Your task to perform on an android device: Go to Google maps Image 0: 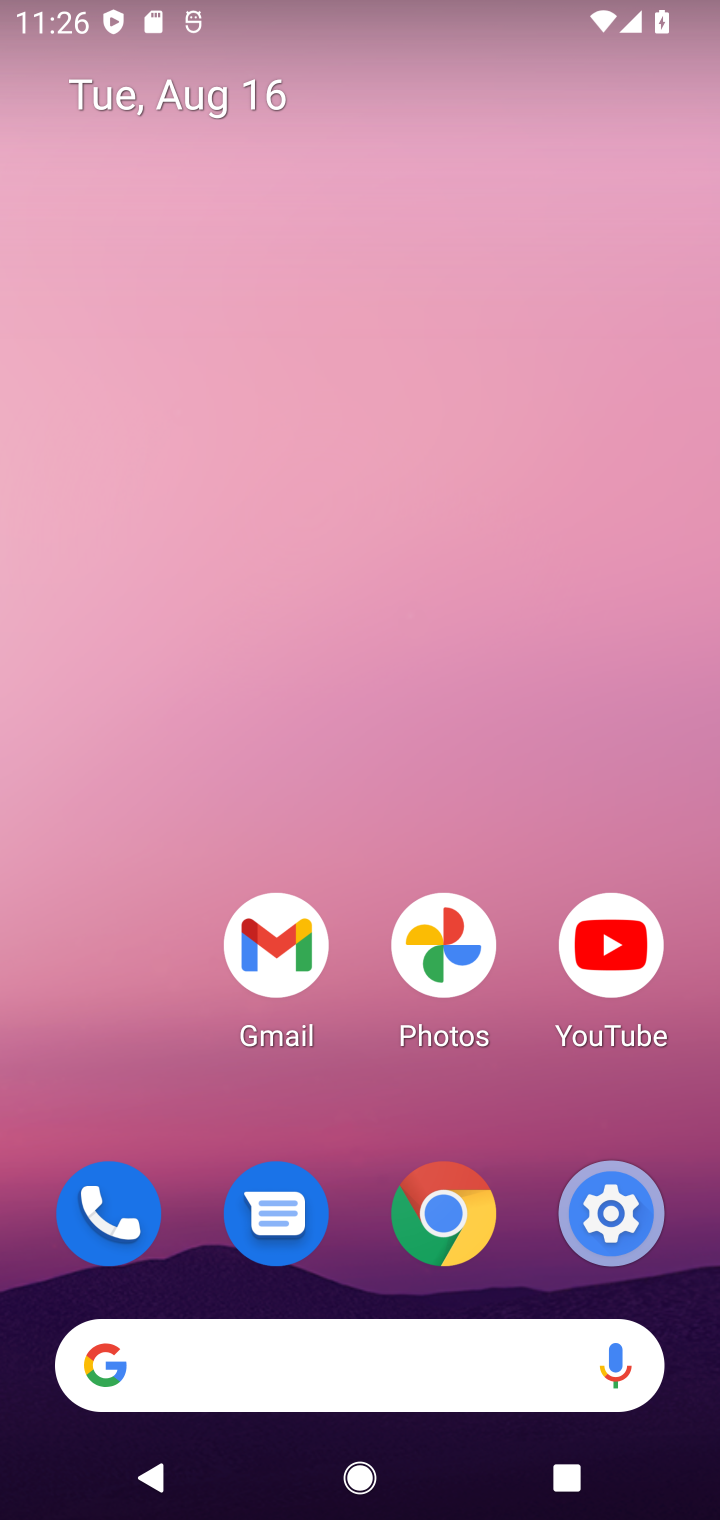
Step 0: drag from (410, 464) to (1, 209)
Your task to perform on an android device: Go to Google maps Image 1: 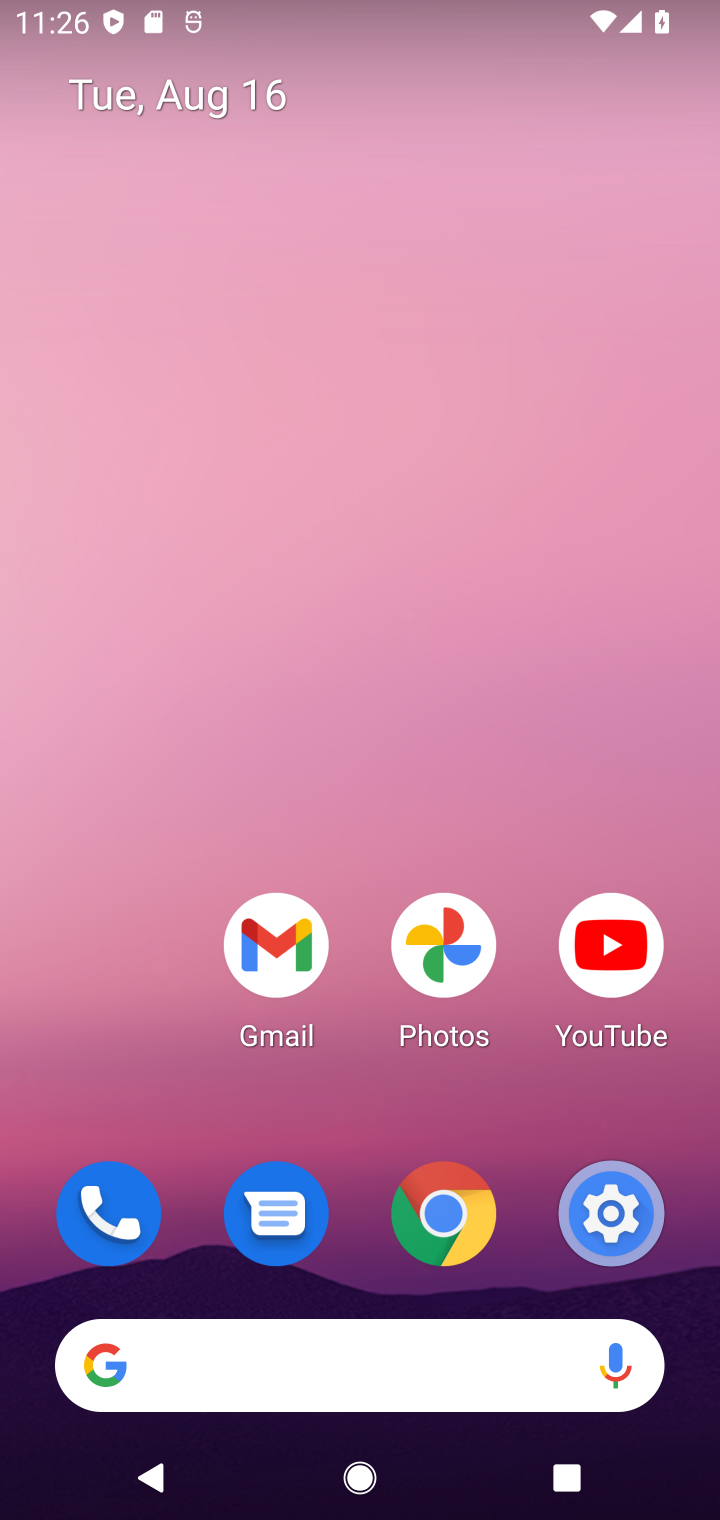
Step 1: drag from (261, 452) to (331, 0)
Your task to perform on an android device: Go to Google maps Image 2: 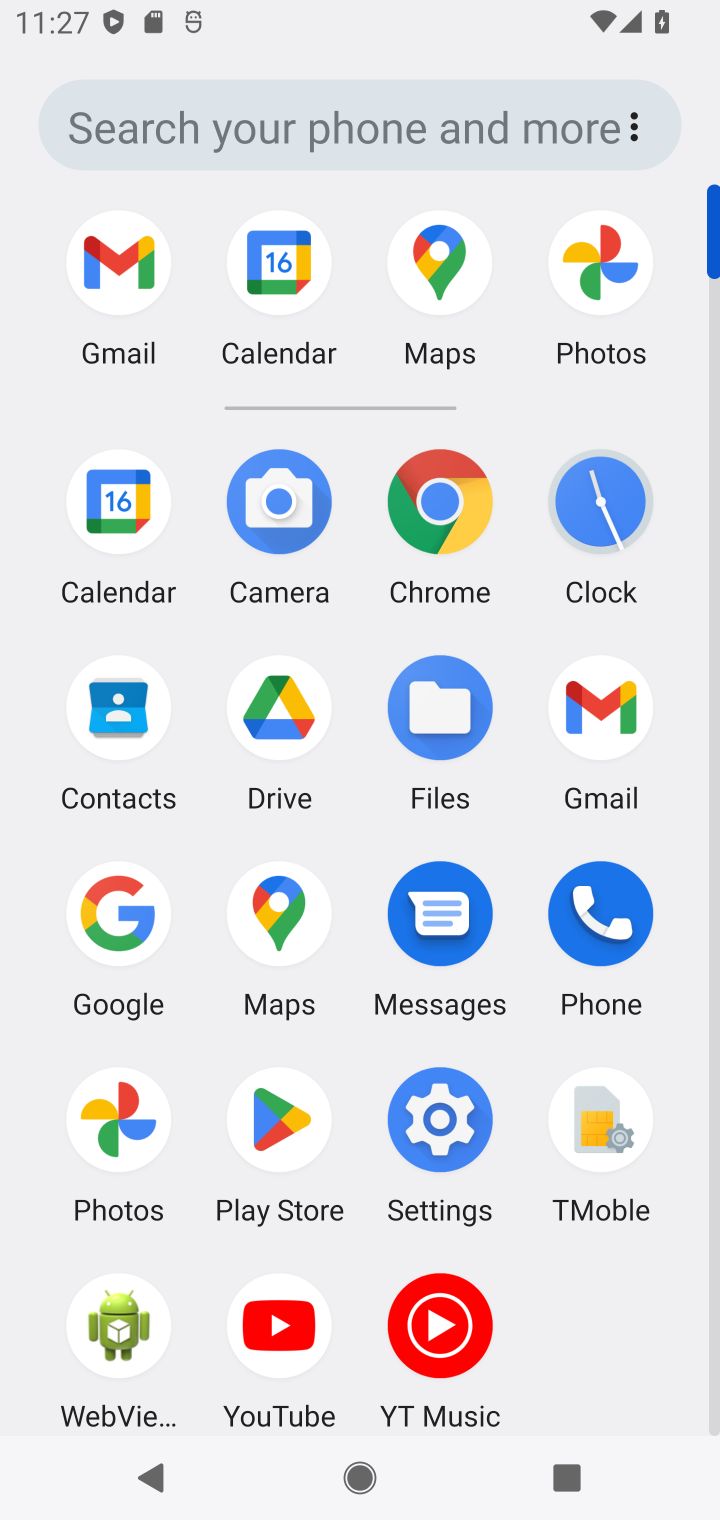
Step 2: click (271, 902)
Your task to perform on an android device: Go to Google maps Image 3: 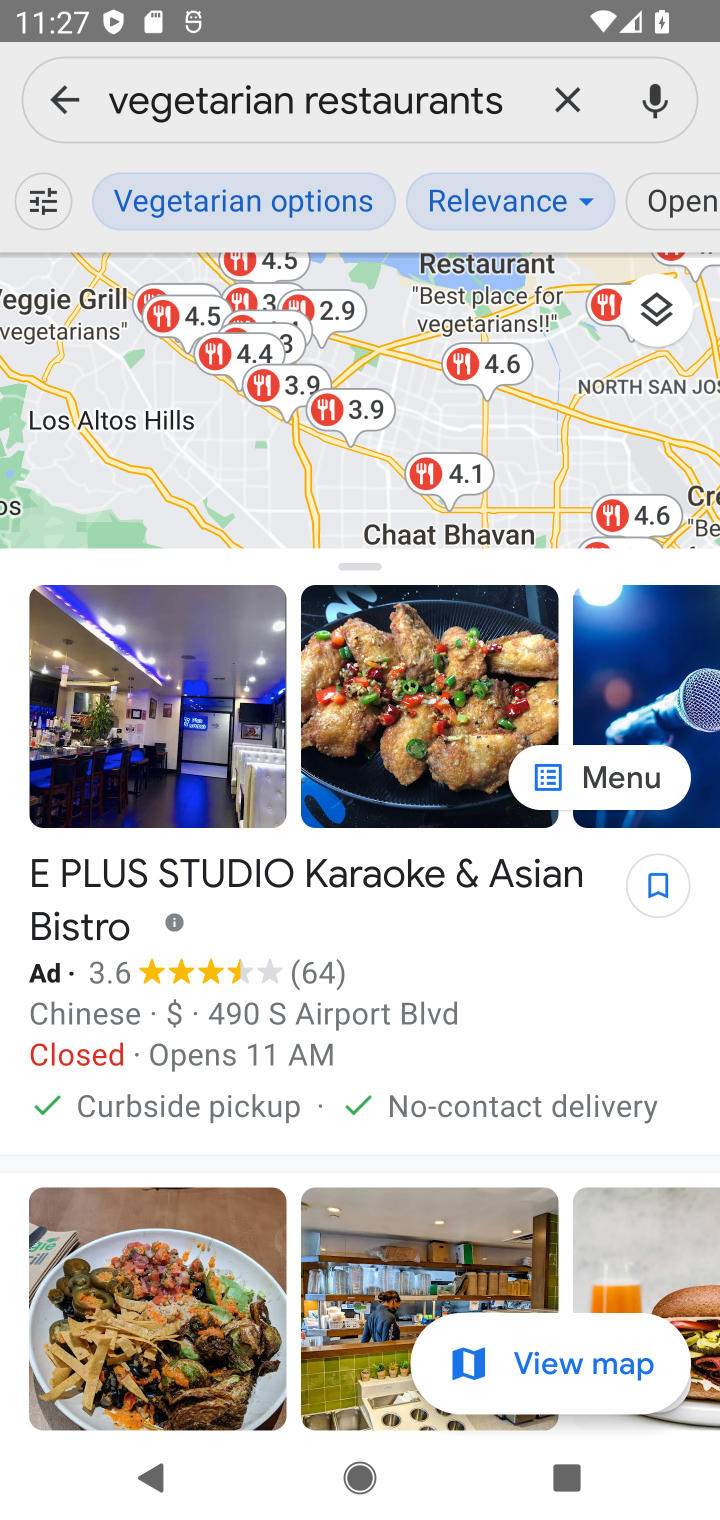
Step 3: task complete